Your task to perform on an android device: turn off improve location accuracy Image 0: 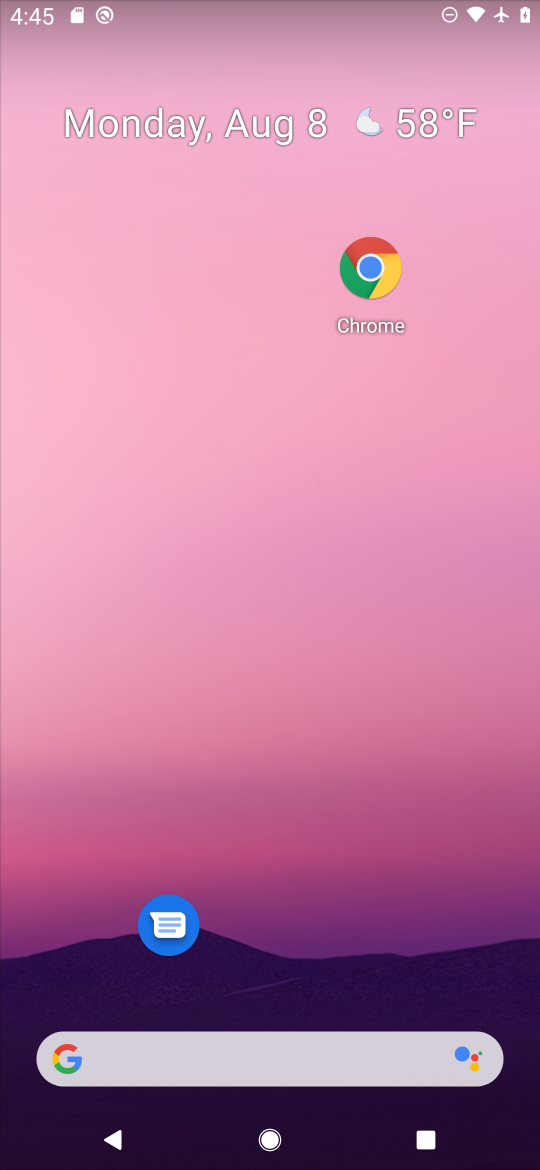
Step 0: drag from (278, 797) to (260, 229)
Your task to perform on an android device: turn off improve location accuracy Image 1: 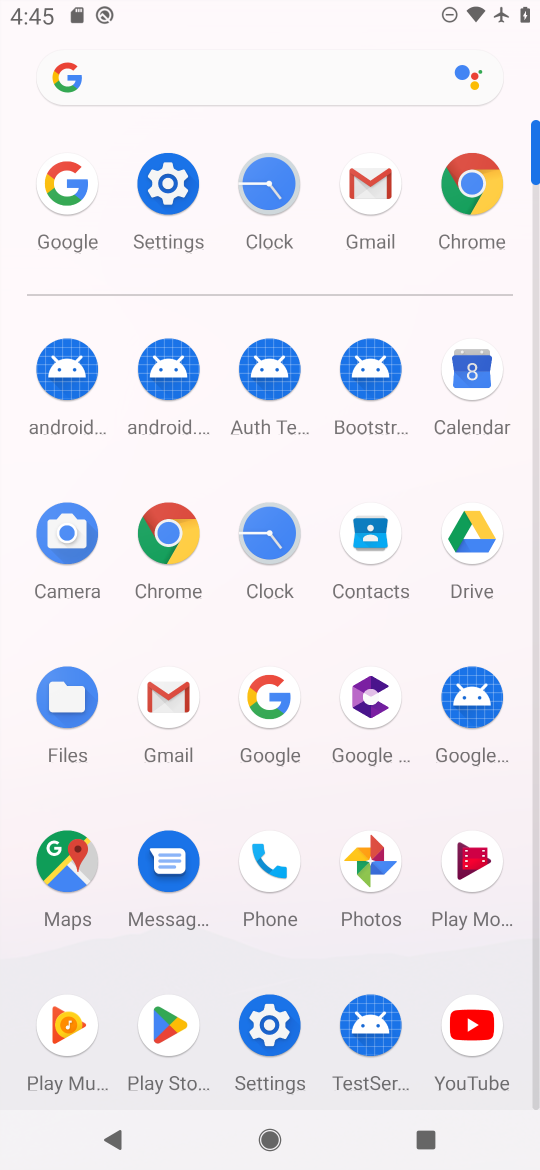
Step 1: click (161, 180)
Your task to perform on an android device: turn off improve location accuracy Image 2: 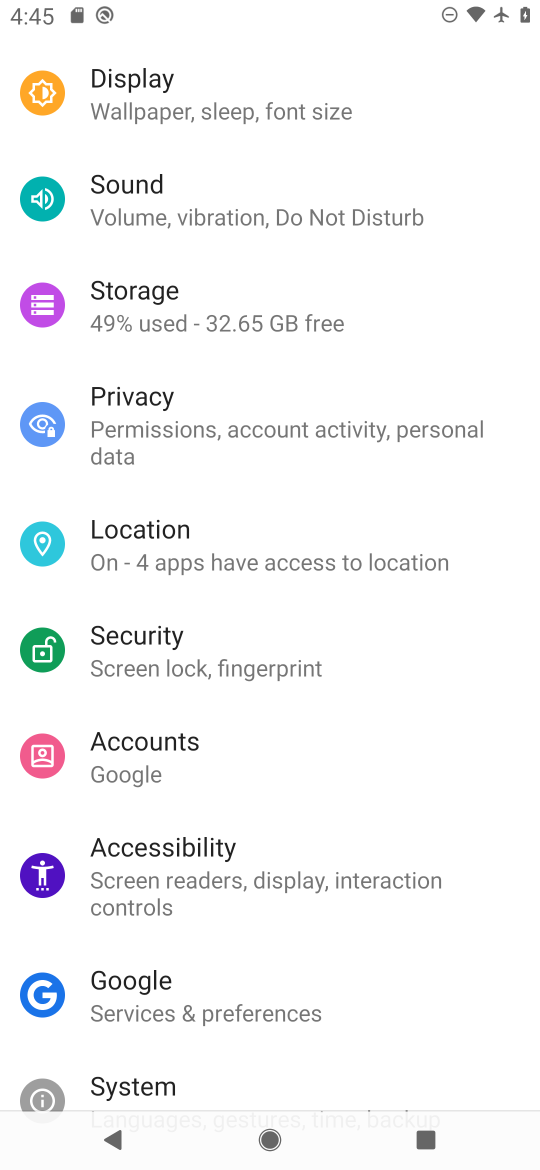
Step 2: click (140, 537)
Your task to perform on an android device: turn off improve location accuracy Image 3: 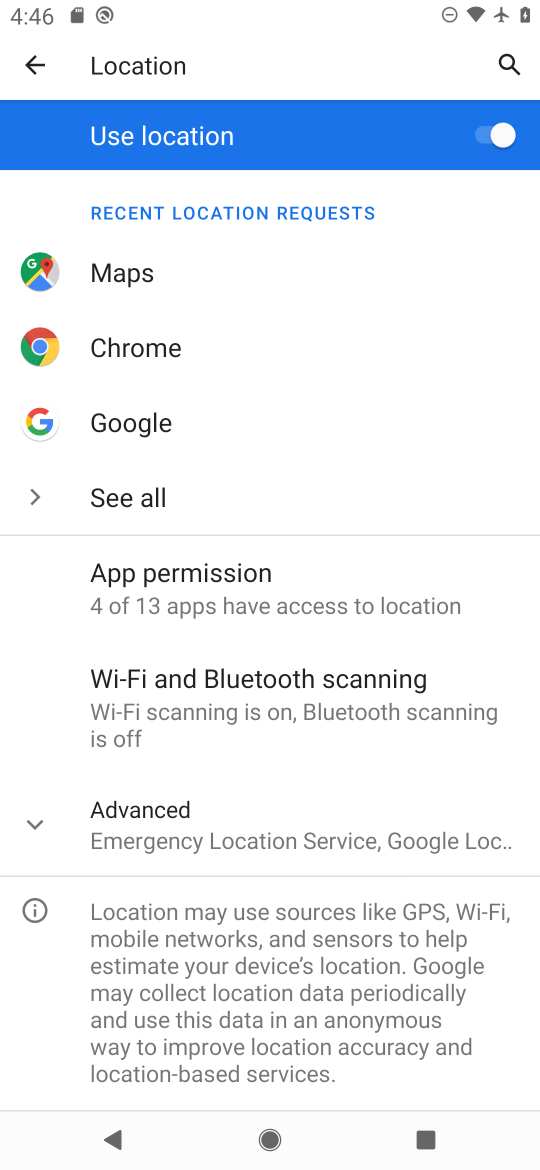
Step 3: click (182, 833)
Your task to perform on an android device: turn off improve location accuracy Image 4: 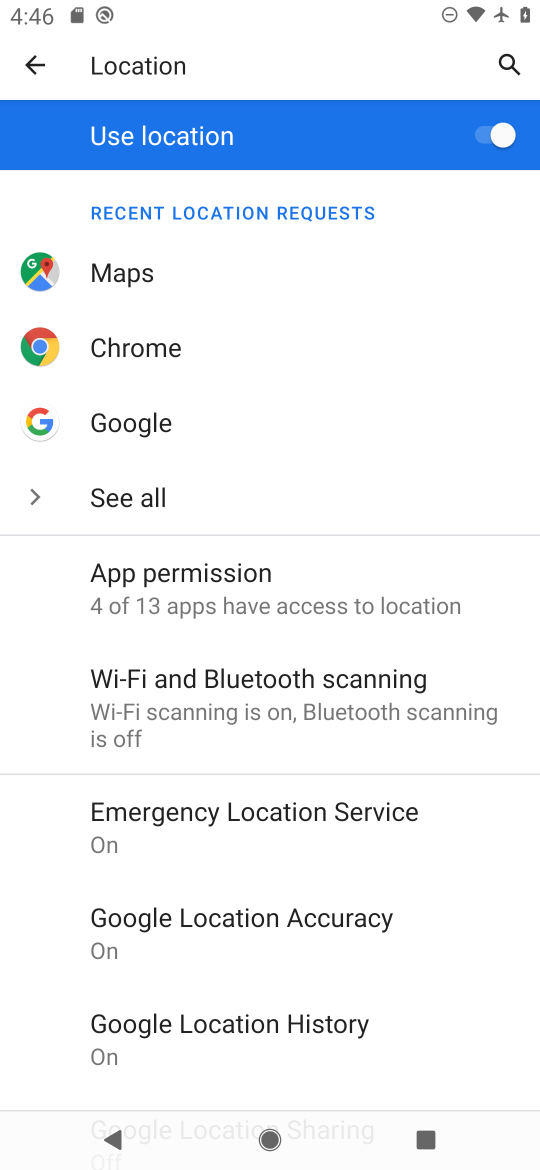
Step 4: click (328, 916)
Your task to perform on an android device: turn off improve location accuracy Image 5: 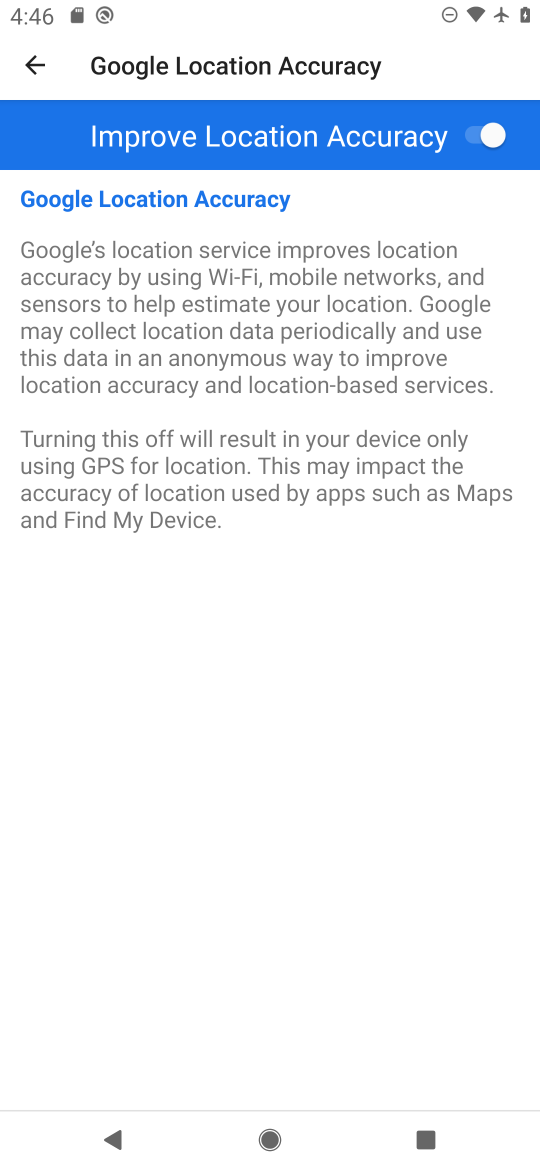
Step 5: click (486, 138)
Your task to perform on an android device: turn off improve location accuracy Image 6: 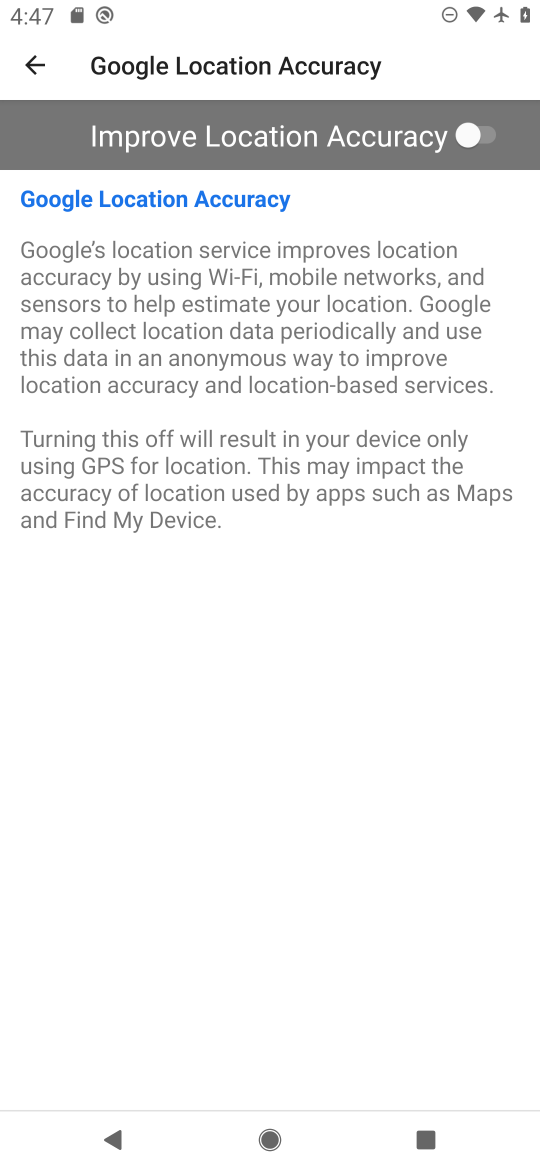
Step 6: task complete